Your task to perform on an android device: set the stopwatch Image 0: 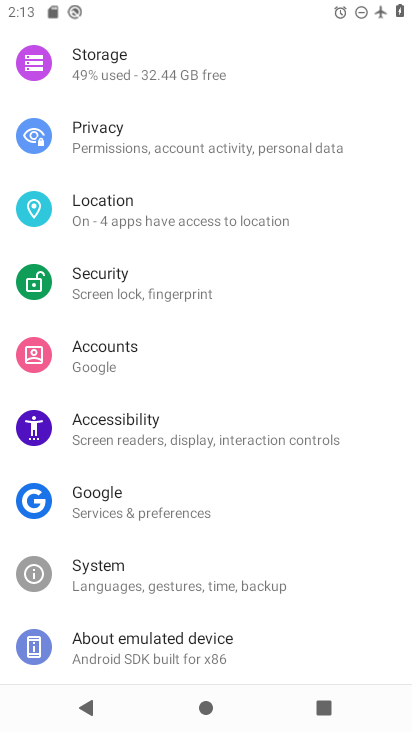
Step 0: press home button
Your task to perform on an android device: set the stopwatch Image 1: 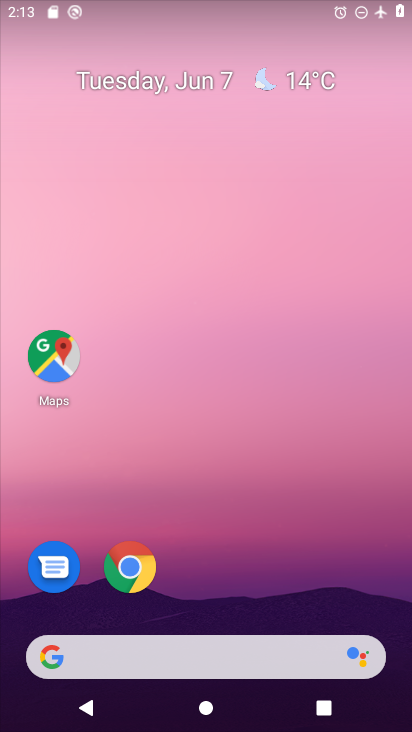
Step 1: drag from (253, 503) to (4, 63)
Your task to perform on an android device: set the stopwatch Image 2: 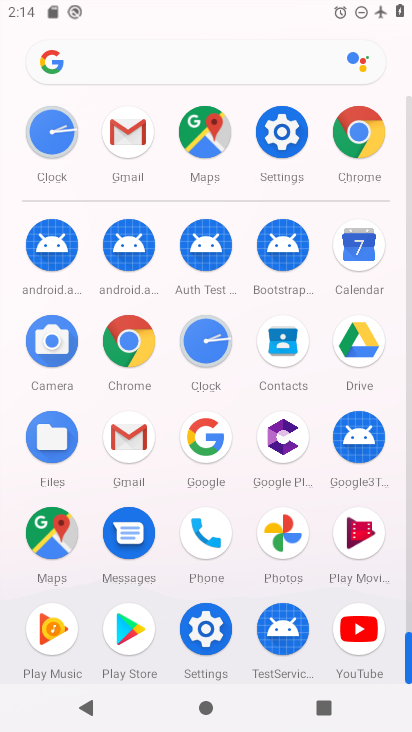
Step 2: click (60, 139)
Your task to perform on an android device: set the stopwatch Image 3: 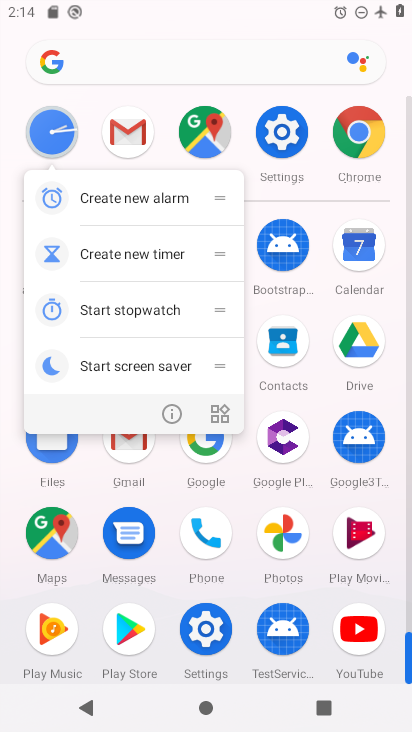
Step 3: click (60, 139)
Your task to perform on an android device: set the stopwatch Image 4: 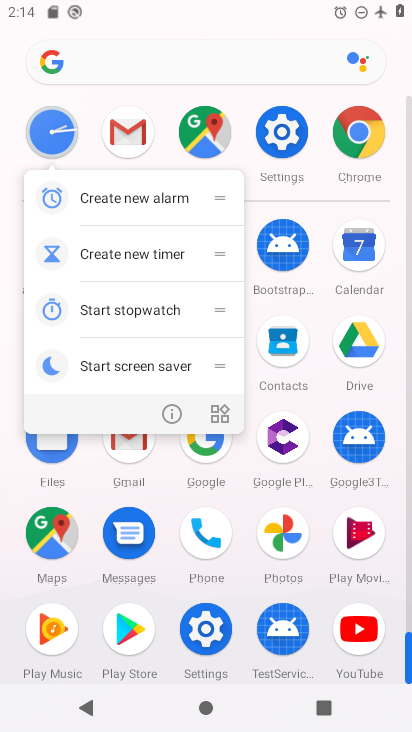
Step 4: click (60, 139)
Your task to perform on an android device: set the stopwatch Image 5: 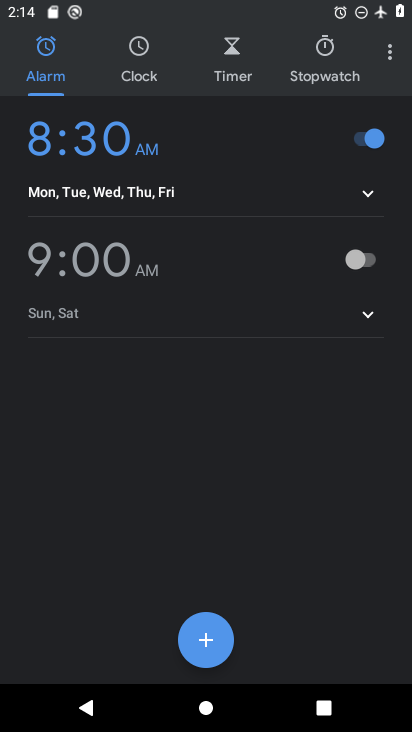
Step 5: click (312, 75)
Your task to perform on an android device: set the stopwatch Image 6: 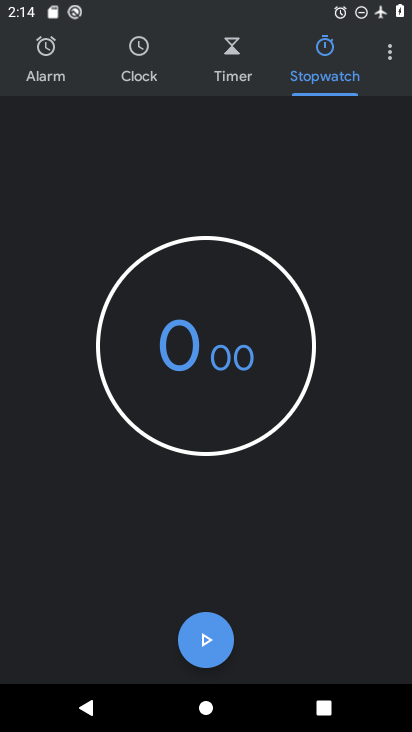
Step 6: click (216, 637)
Your task to perform on an android device: set the stopwatch Image 7: 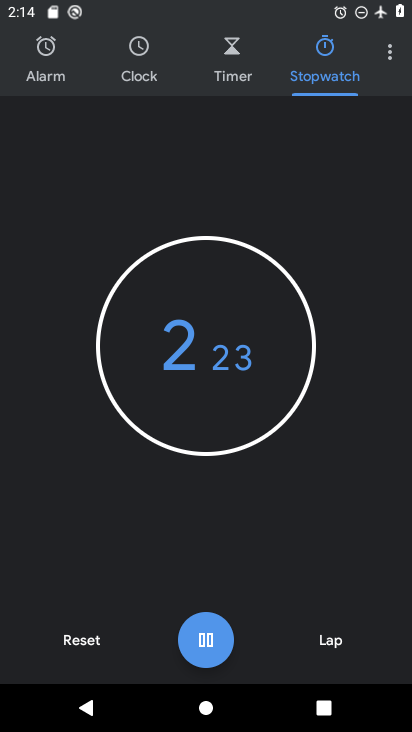
Step 7: task complete